Your task to perform on an android device: Toggle the flashlight Image 0: 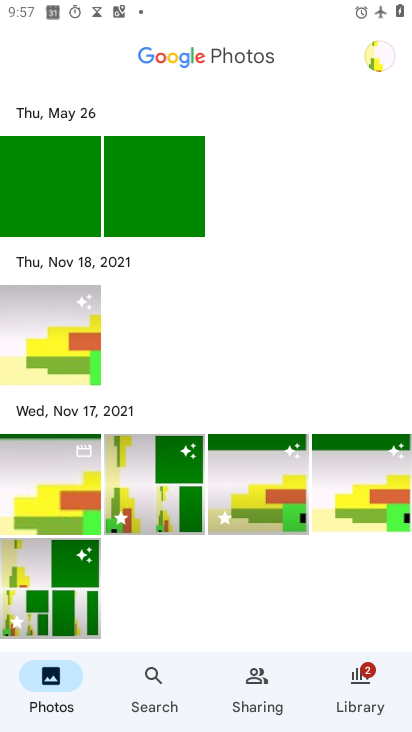
Step 0: press home button
Your task to perform on an android device: Toggle the flashlight Image 1: 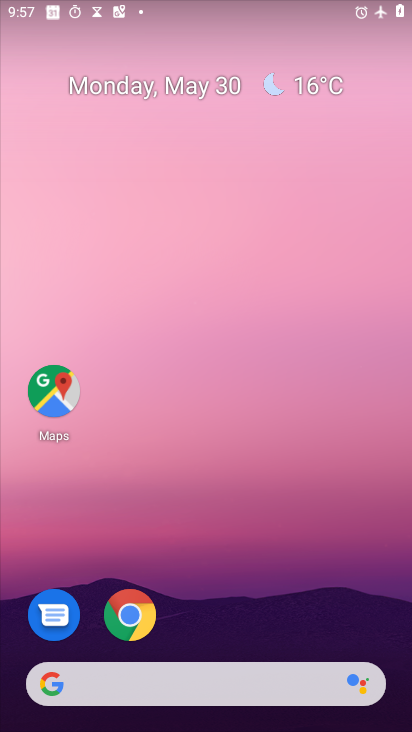
Step 1: drag from (314, 577) to (393, 527)
Your task to perform on an android device: Toggle the flashlight Image 2: 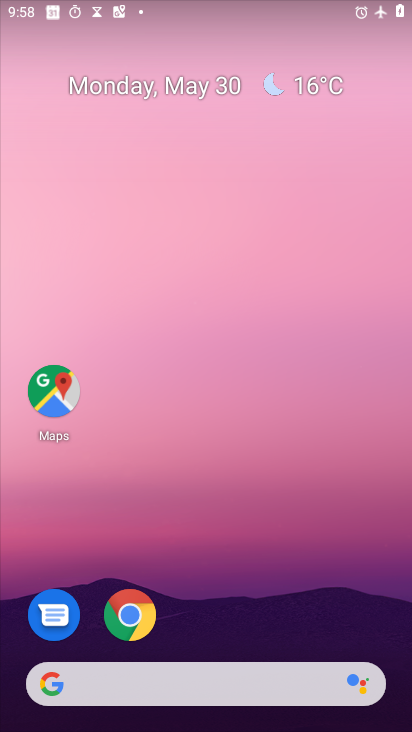
Step 2: drag from (350, 612) to (410, 197)
Your task to perform on an android device: Toggle the flashlight Image 3: 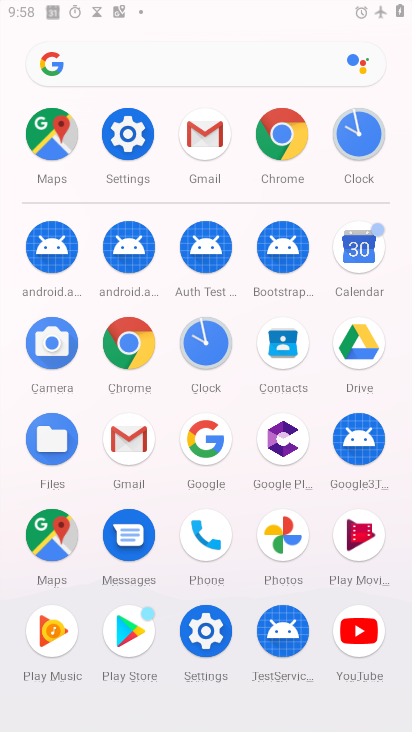
Step 3: click (144, 159)
Your task to perform on an android device: Toggle the flashlight Image 4: 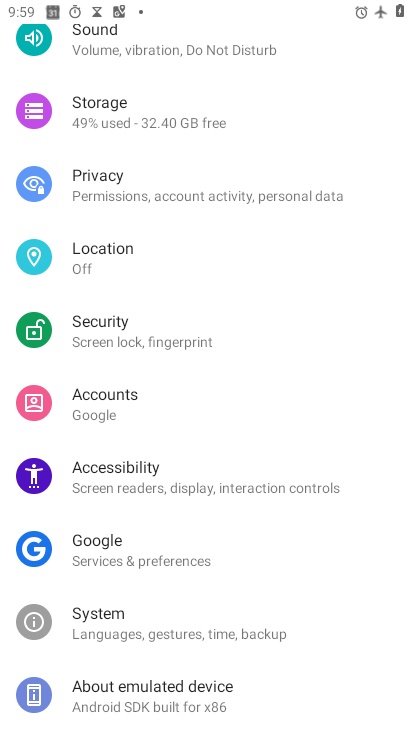
Step 4: task complete